Your task to perform on an android device: toggle translation in the chrome app Image 0: 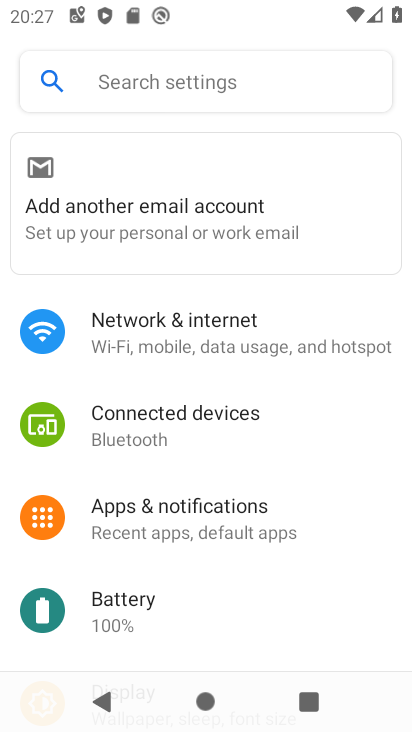
Step 0: press home button
Your task to perform on an android device: toggle translation in the chrome app Image 1: 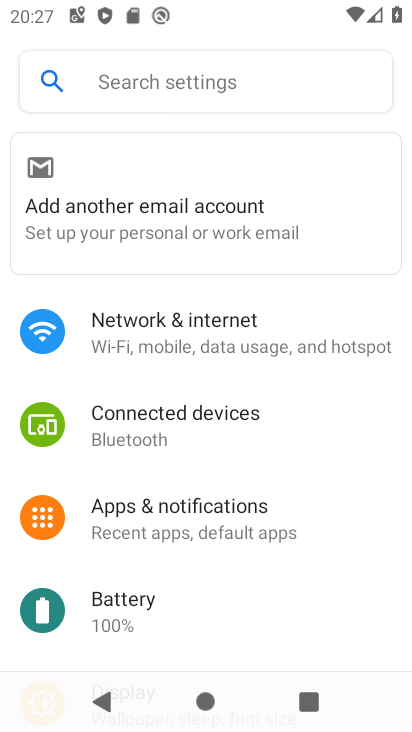
Step 1: press home button
Your task to perform on an android device: toggle translation in the chrome app Image 2: 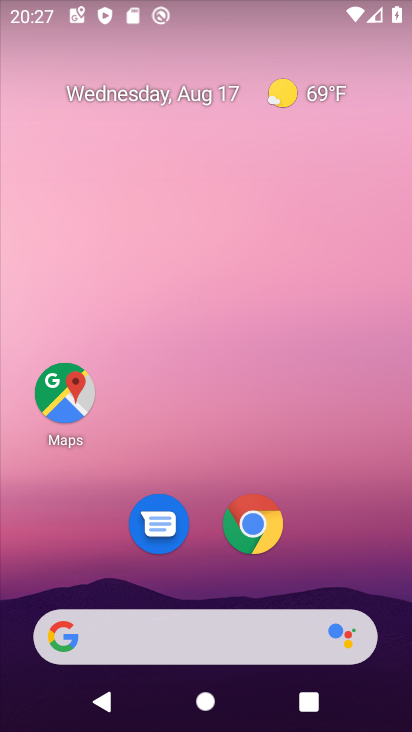
Step 2: click (253, 520)
Your task to perform on an android device: toggle translation in the chrome app Image 3: 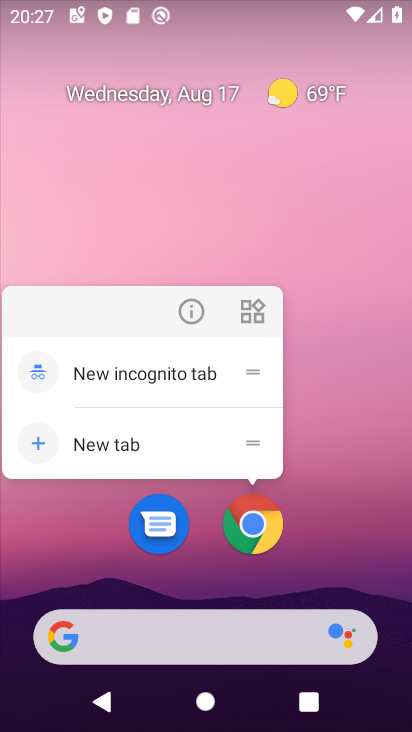
Step 3: click (255, 520)
Your task to perform on an android device: toggle translation in the chrome app Image 4: 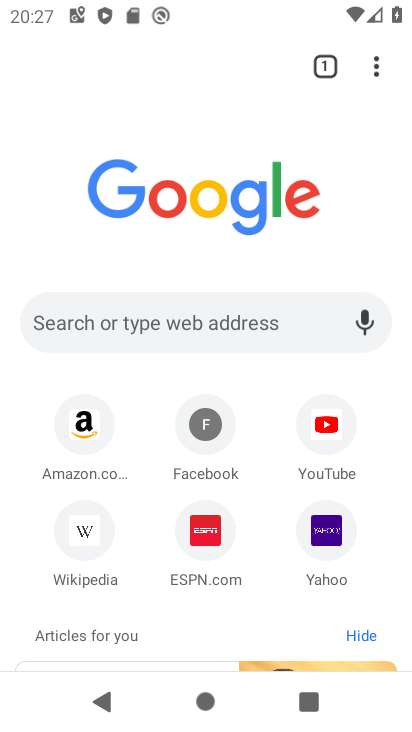
Step 4: click (375, 69)
Your task to perform on an android device: toggle translation in the chrome app Image 5: 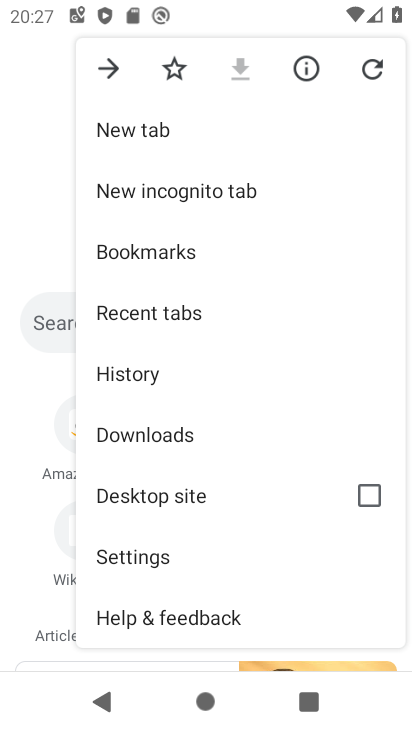
Step 5: click (185, 547)
Your task to perform on an android device: toggle translation in the chrome app Image 6: 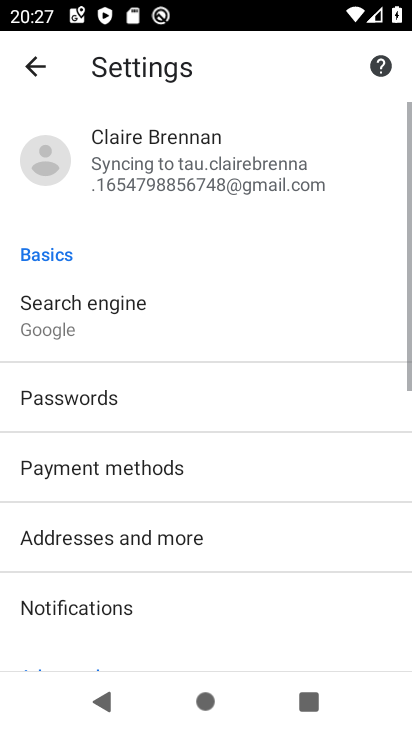
Step 6: drag from (216, 522) to (316, 2)
Your task to perform on an android device: toggle translation in the chrome app Image 7: 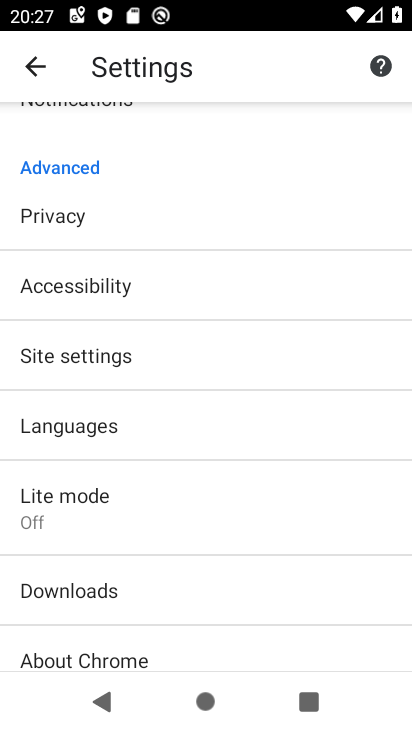
Step 7: click (212, 425)
Your task to perform on an android device: toggle translation in the chrome app Image 8: 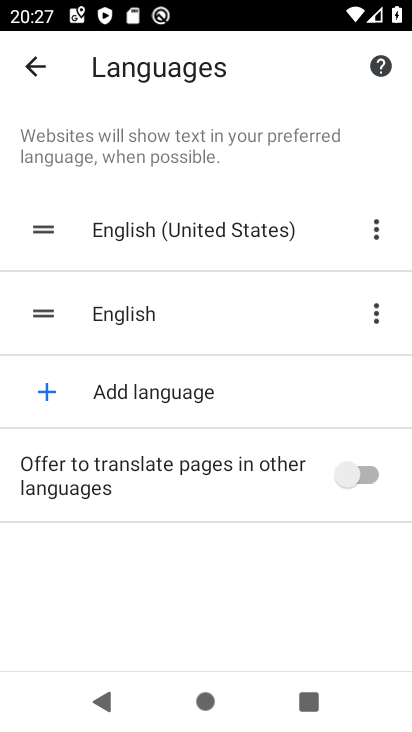
Step 8: click (359, 473)
Your task to perform on an android device: toggle translation in the chrome app Image 9: 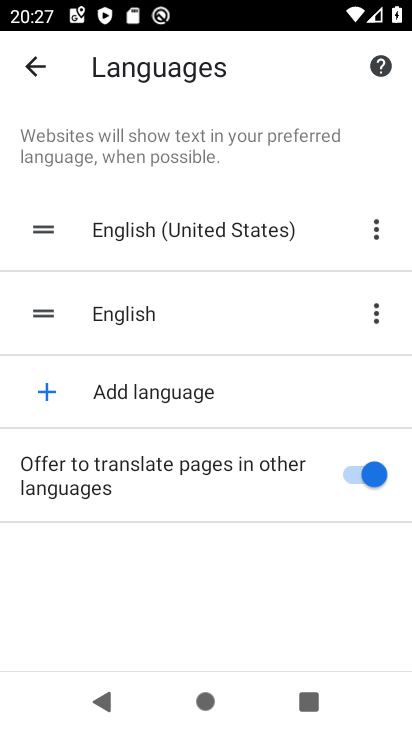
Step 9: task complete